Your task to perform on an android device: toggle sleep mode Image 0: 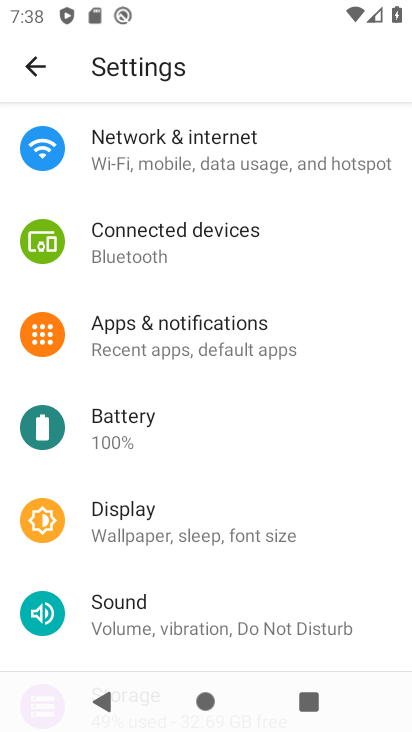
Step 0: click (259, 519)
Your task to perform on an android device: toggle sleep mode Image 1: 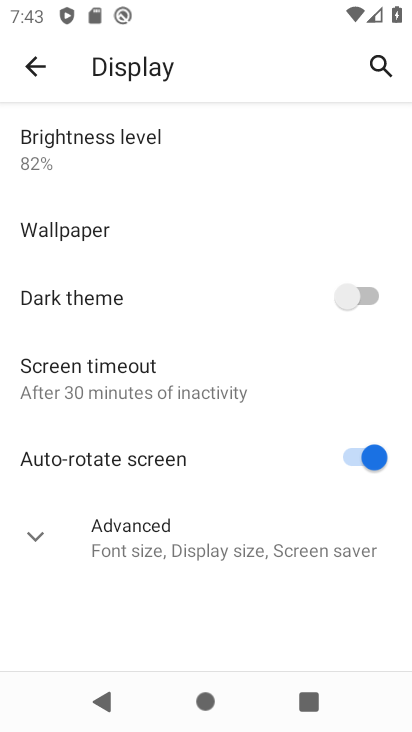
Step 1: click (34, 527)
Your task to perform on an android device: toggle sleep mode Image 2: 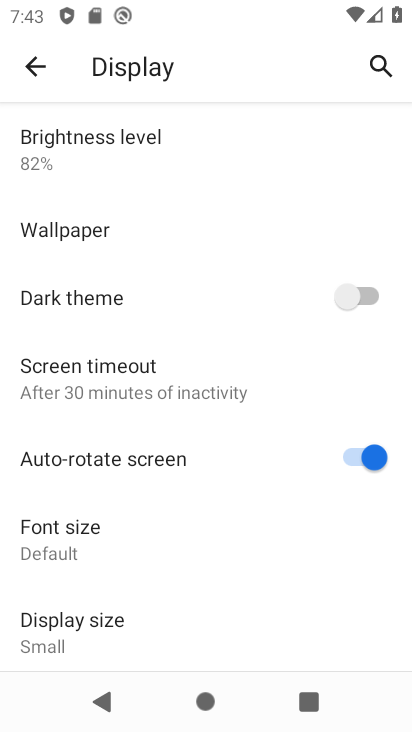
Step 2: task complete